Your task to perform on an android device: change timer sound Image 0: 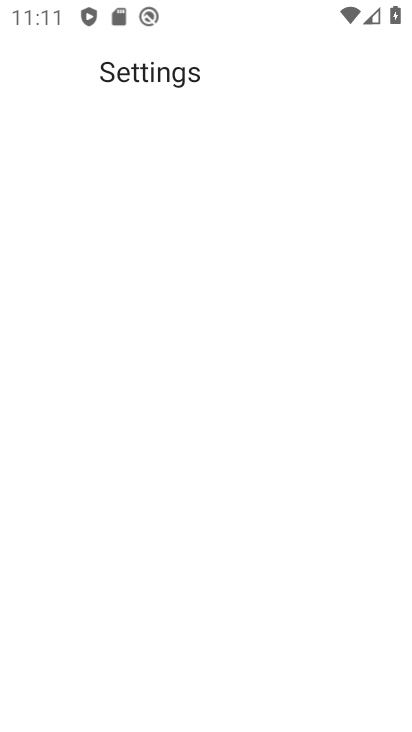
Step 0: drag from (209, 619) to (404, 428)
Your task to perform on an android device: change timer sound Image 1: 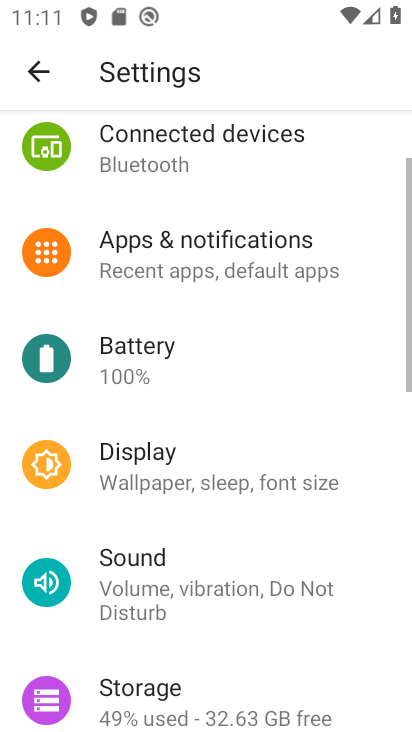
Step 1: press home button
Your task to perform on an android device: change timer sound Image 2: 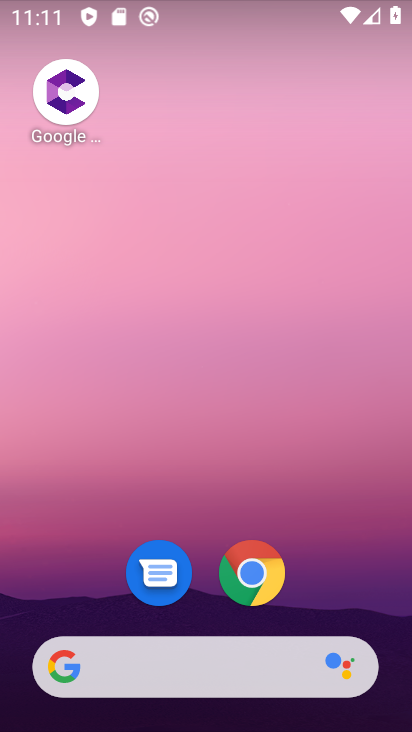
Step 2: drag from (203, 577) to (322, 2)
Your task to perform on an android device: change timer sound Image 3: 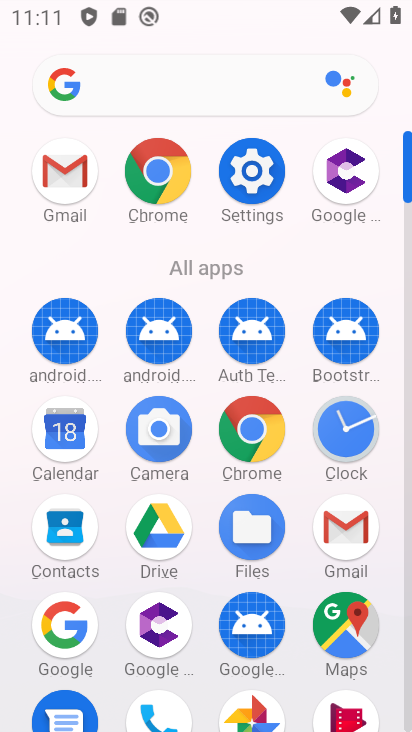
Step 3: click (346, 433)
Your task to perform on an android device: change timer sound Image 4: 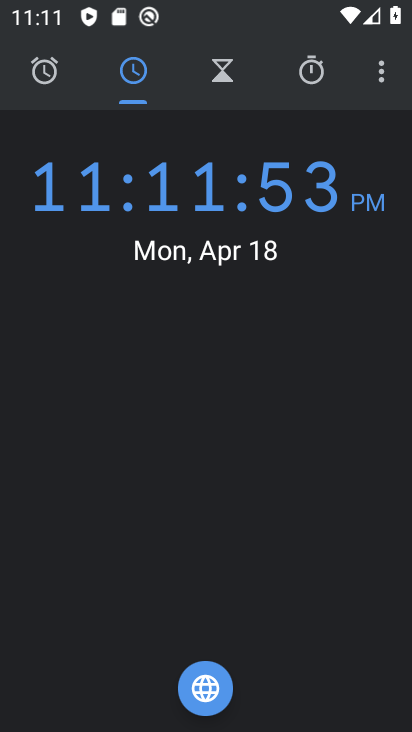
Step 4: click (384, 76)
Your task to perform on an android device: change timer sound Image 5: 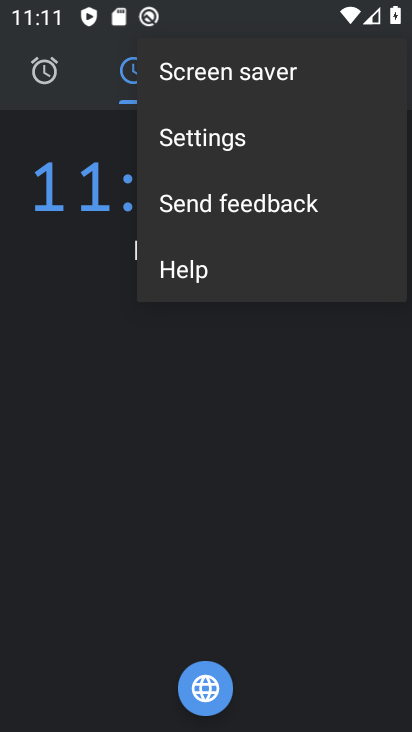
Step 5: click (195, 138)
Your task to perform on an android device: change timer sound Image 6: 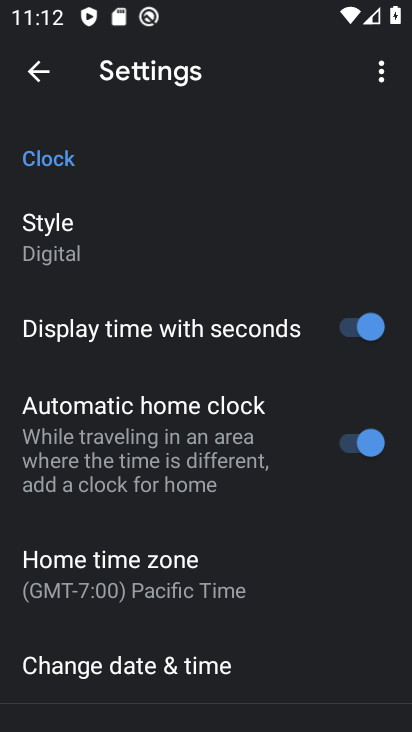
Step 6: drag from (168, 524) to (223, 180)
Your task to perform on an android device: change timer sound Image 7: 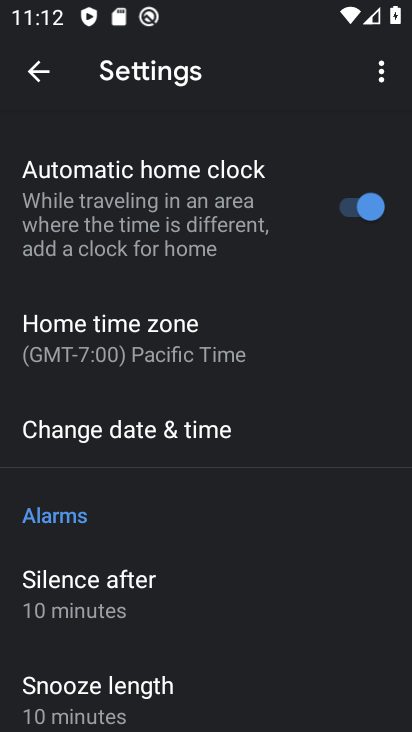
Step 7: drag from (217, 609) to (278, 200)
Your task to perform on an android device: change timer sound Image 8: 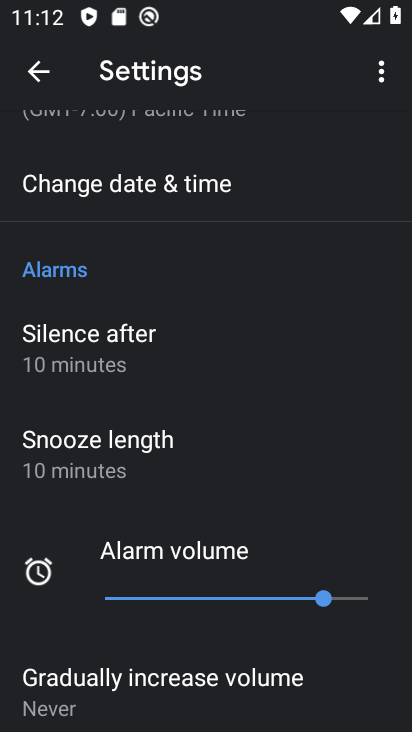
Step 8: drag from (150, 626) to (252, 251)
Your task to perform on an android device: change timer sound Image 9: 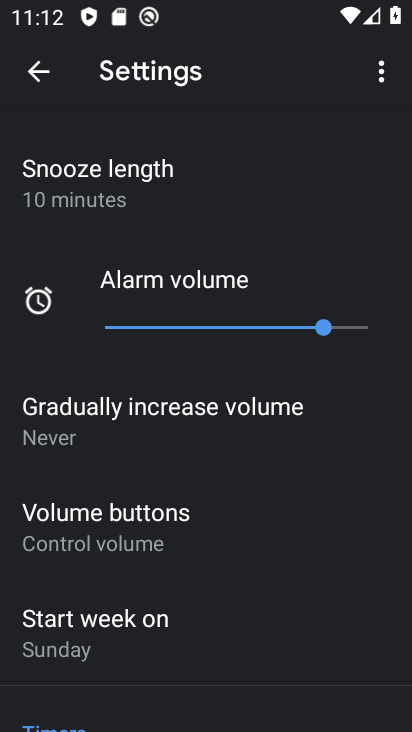
Step 9: drag from (182, 575) to (224, 180)
Your task to perform on an android device: change timer sound Image 10: 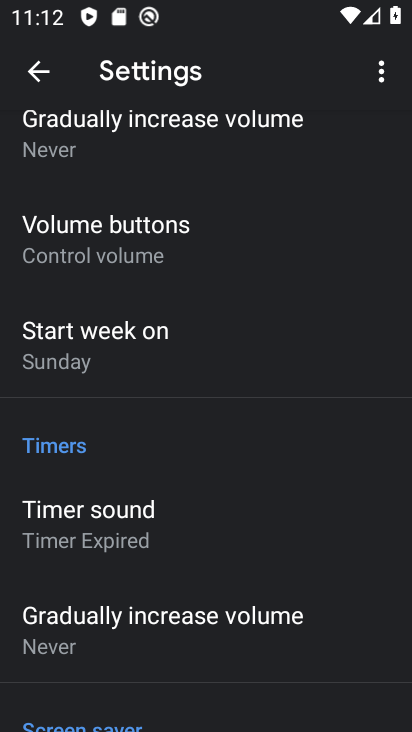
Step 10: click (130, 513)
Your task to perform on an android device: change timer sound Image 11: 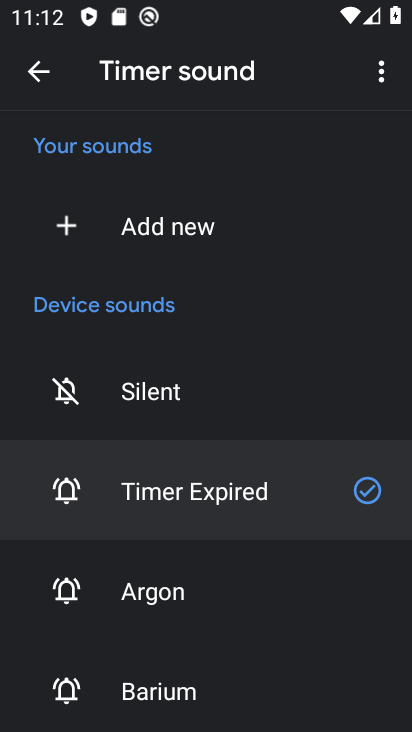
Step 11: click (168, 590)
Your task to perform on an android device: change timer sound Image 12: 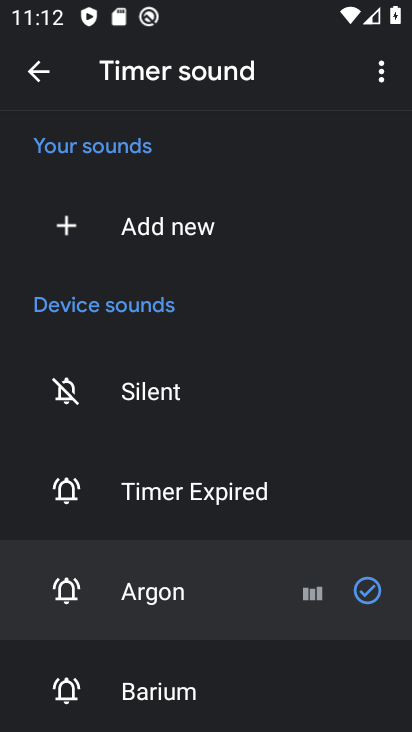
Step 12: task complete